Your task to perform on an android device: turn on translation in the chrome app Image 0: 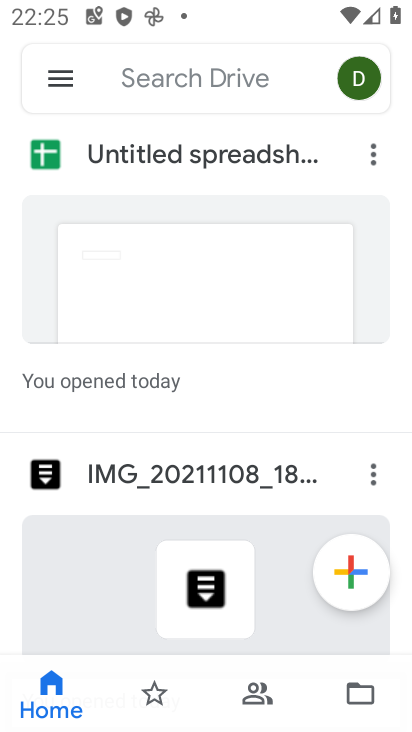
Step 0: press home button
Your task to perform on an android device: turn on translation in the chrome app Image 1: 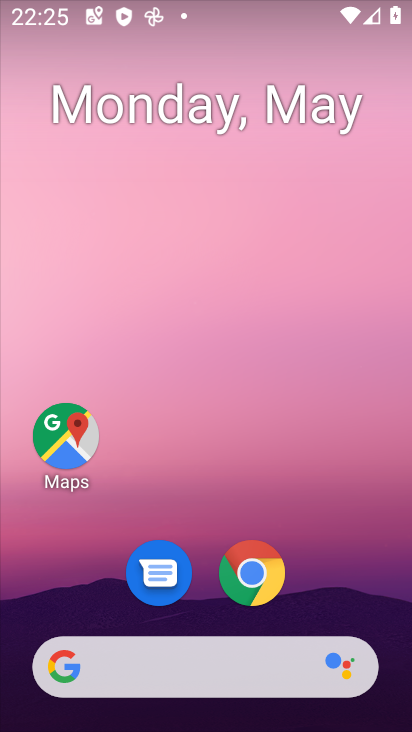
Step 1: click (280, 577)
Your task to perform on an android device: turn on translation in the chrome app Image 2: 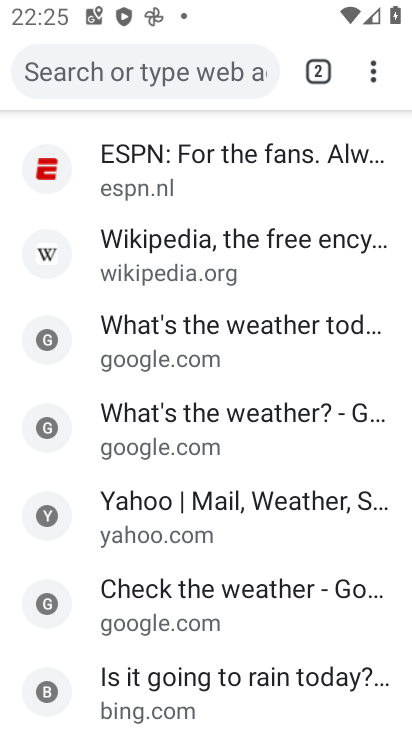
Step 2: click (376, 62)
Your task to perform on an android device: turn on translation in the chrome app Image 3: 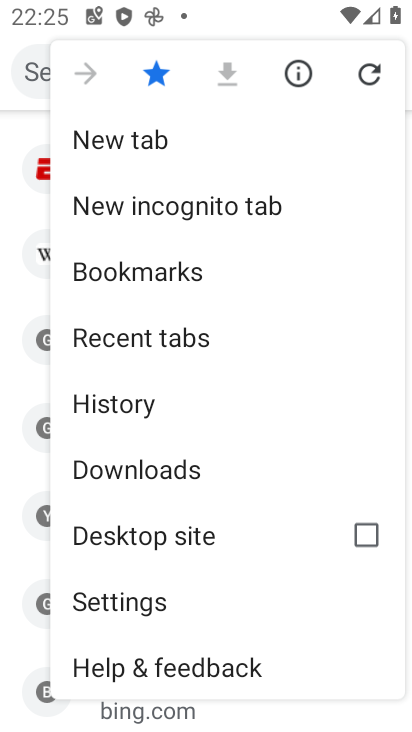
Step 3: click (195, 602)
Your task to perform on an android device: turn on translation in the chrome app Image 4: 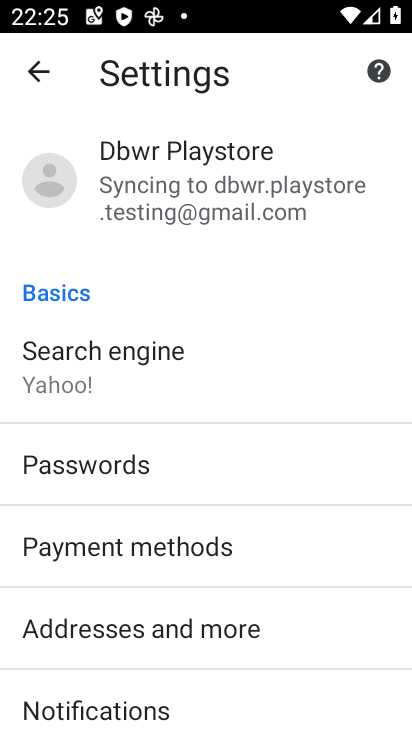
Step 4: drag from (190, 653) to (202, 168)
Your task to perform on an android device: turn on translation in the chrome app Image 5: 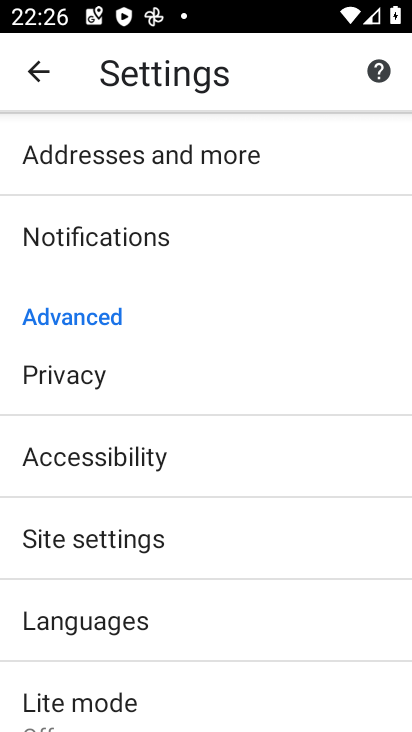
Step 5: click (131, 618)
Your task to perform on an android device: turn on translation in the chrome app Image 6: 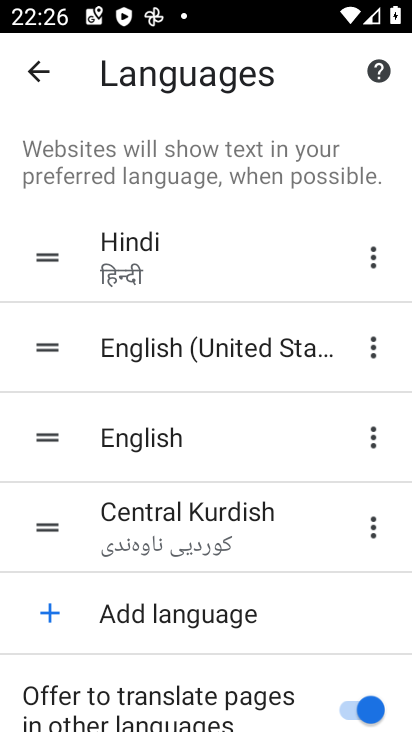
Step 6: task complete